Your task to perform on an android device: find which apps use the phone's location Image 0: 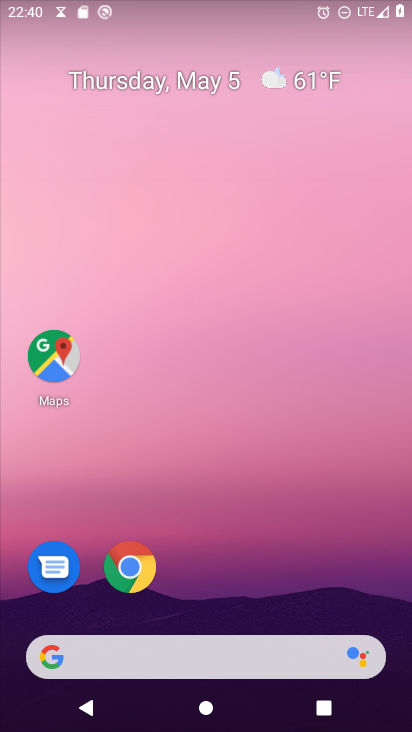
Step 0: drag from (223, 726) to (223, 126)
Your task to perform on an android device: find which apps use the phone's location Image 1: 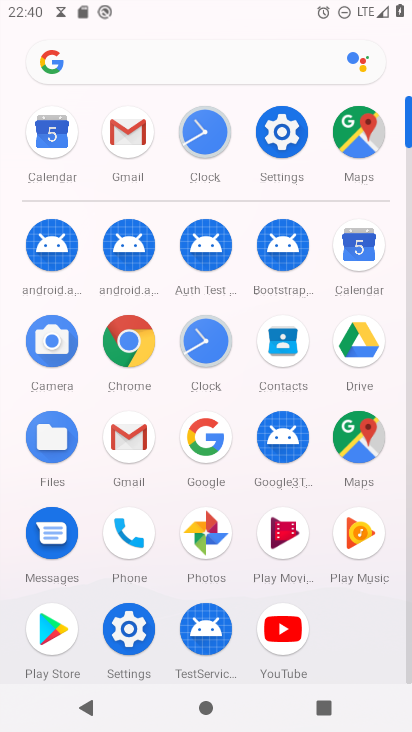
Step 1: click (283, 131)
Your task to perform on an android device: find which apps use the phone's location Image 2: 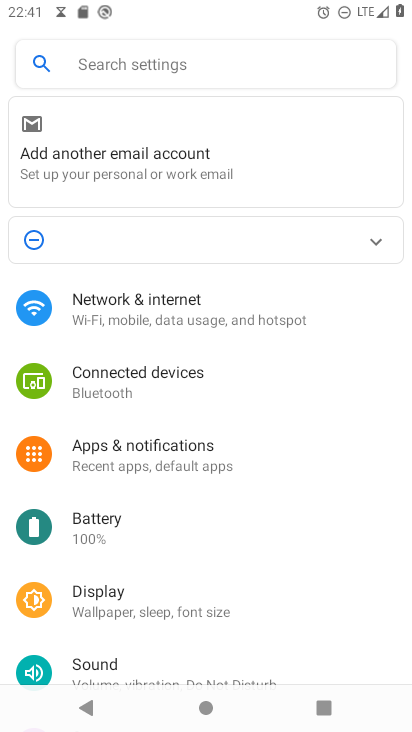
Step 2: drag from (161, 646) to (169, 269)
Your task to perform on an android device: find which apps use the phone's location Image 3: 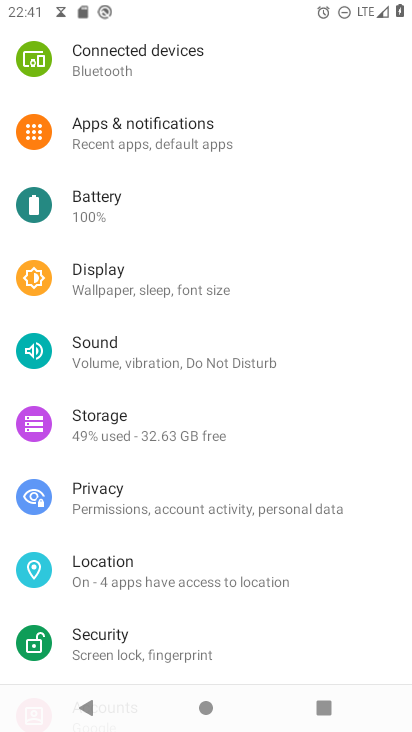
Step 3: click (113, 571)
Your task to perform on an android device: find which apps use the phone's location Image 4: 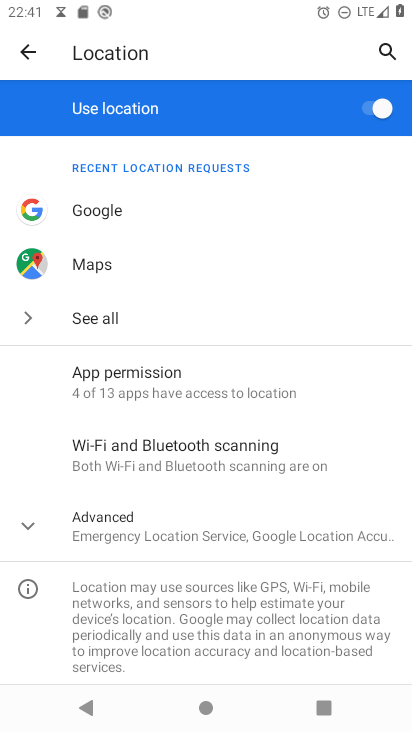
Step 4: click (130, 377)
Your task to perform on an android device: find which apps use the phone's location Image 5: 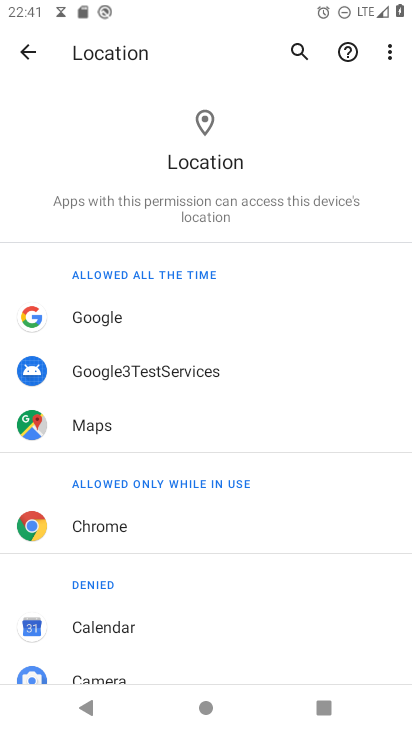
Step 5: task complete